Your task to perform on an android device: Open Youtube and go to the subscriptions tab Image 0: 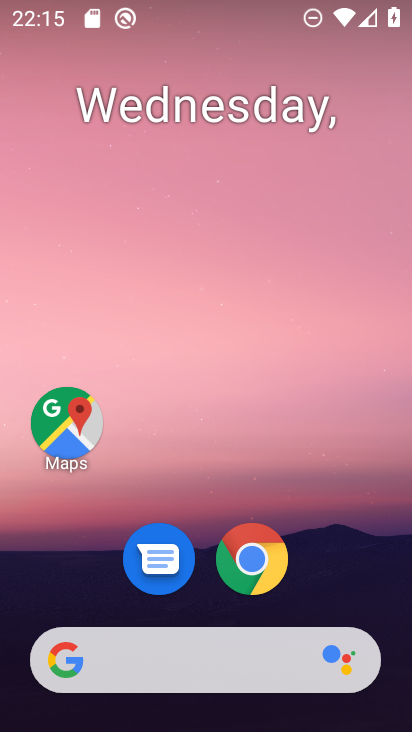
Step 0: drag from (345, 581) to (400, 123)
Your task to perform on an android device: Open Youtube and go to the subscriptions tab Image 1: 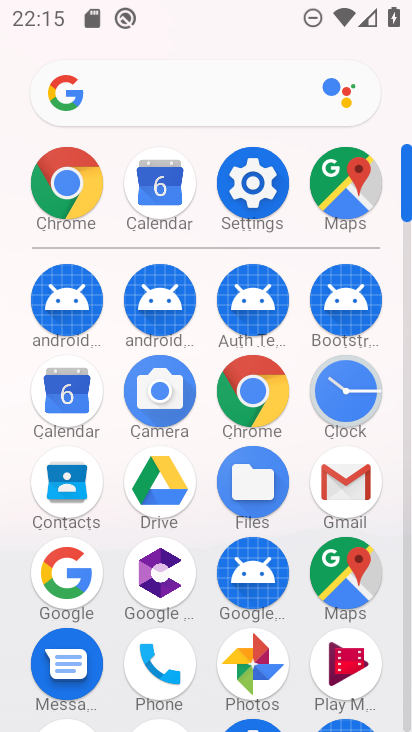
Step 1: drag from (387, 636) to (385, 385)
Your task to perform on an android device: Open Youtube and go to the subscriptions tab Image 2: 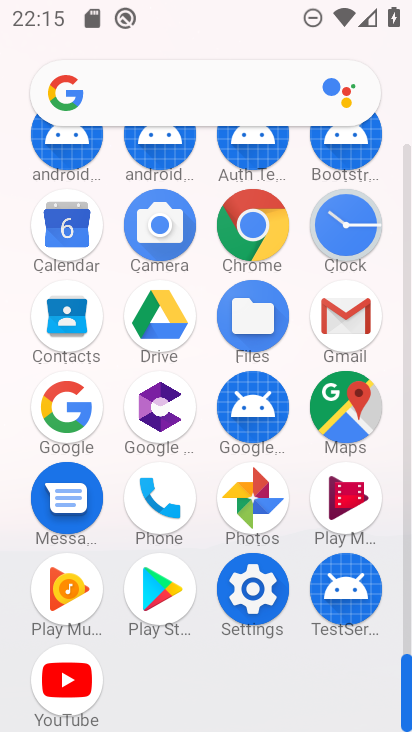
Step 2: click (74, 678)
Your task to perform on an android device: Open Youtube and go to the subscriptions tab Image 3: 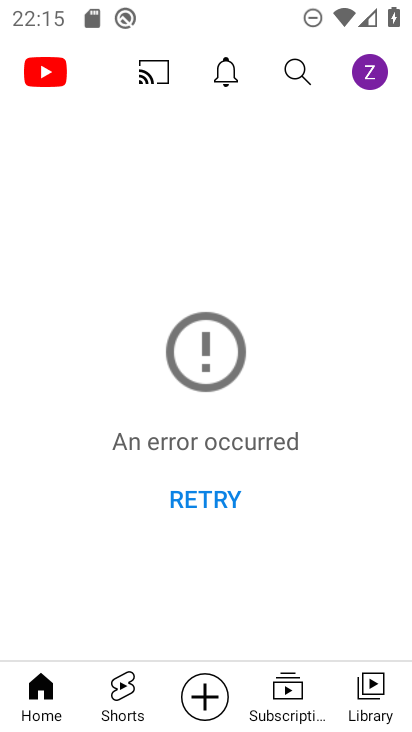
Step 3: click (287, 688)
Your task to perform on an android device: Open Youtube and go to the subscriptions tab Image 4: 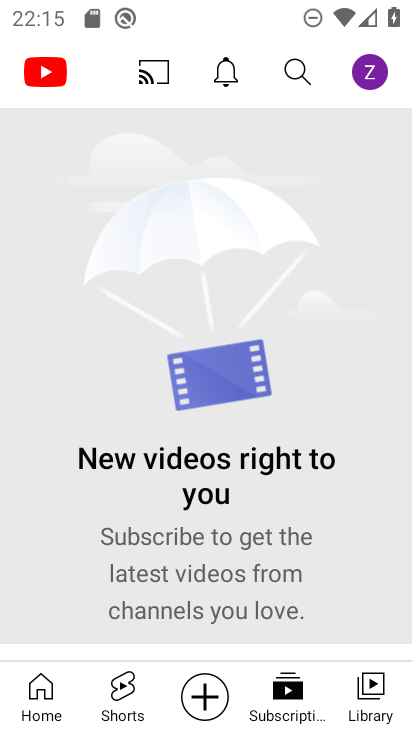
Step 4: task complete